Your task to perform on an android device: Open internet settings Image 0: 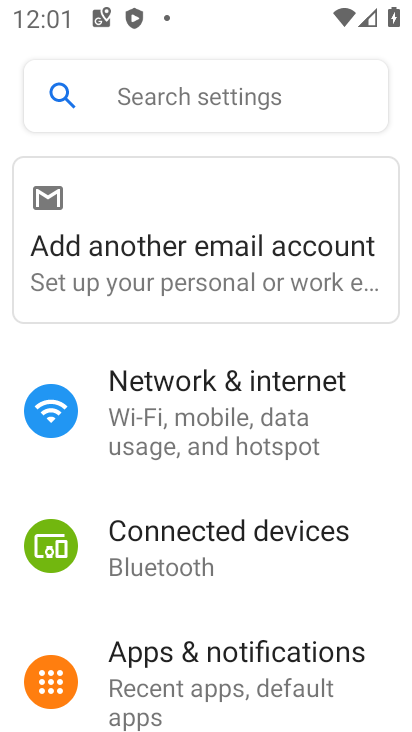
Step 0: press home button
Your task to perform on an android device: Open internet settings Image 1: 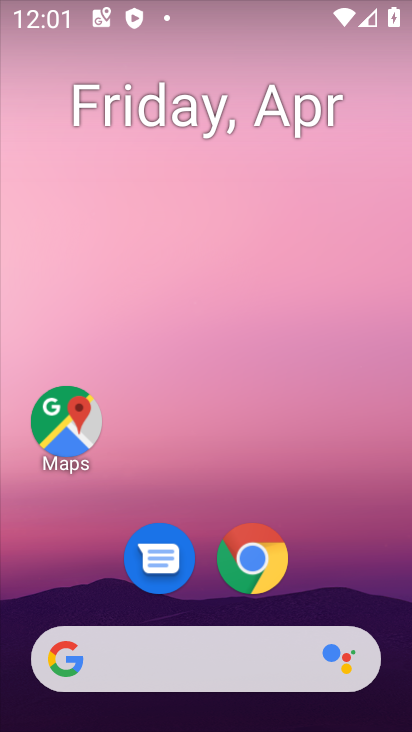
Step 1: drag from (387, 623) to (218, 55)
Your task to perform on an android device: Open internet settings Image 2: 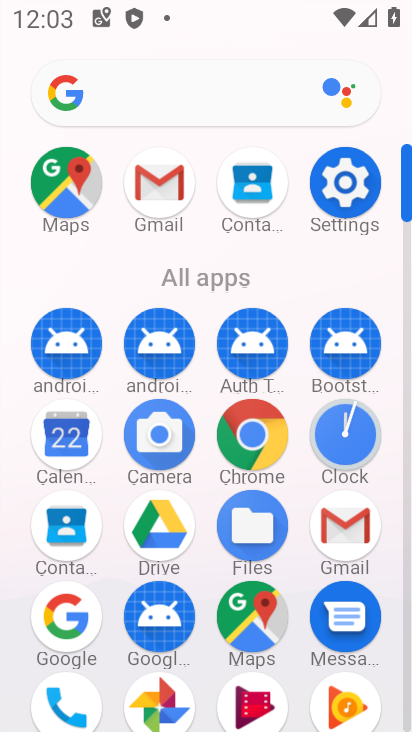
Step 2: click (343, 184)
Your task to perform on an android device: Open internet settings Image 3: 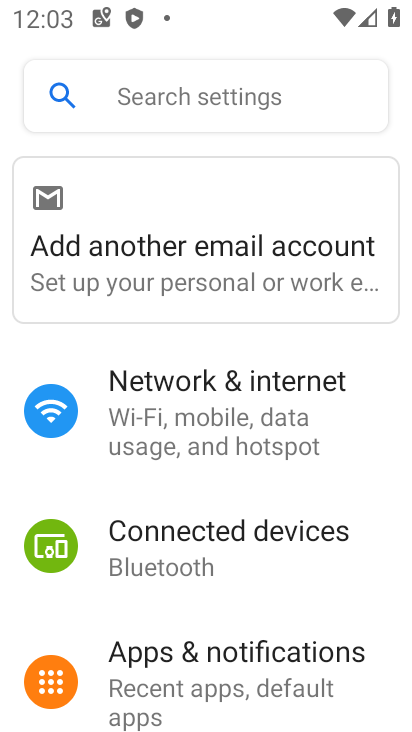
Step 3: click (312, 413)
Your task to perform on an android device: Open internet settings Image 4: 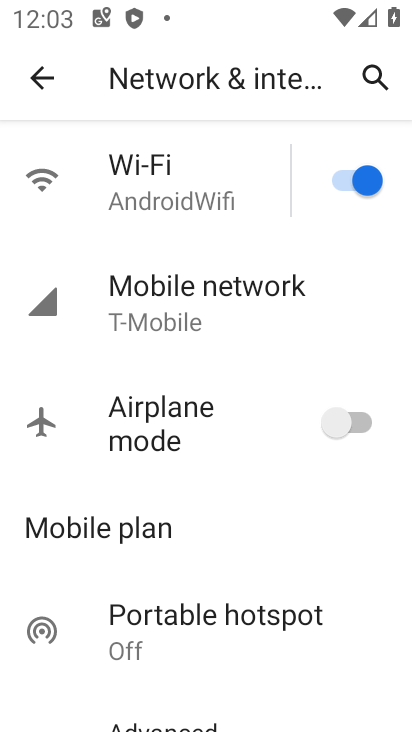
Step 4: task complete